Your task to perform on an android device: stop showing notifications on the lock screen Image 0: 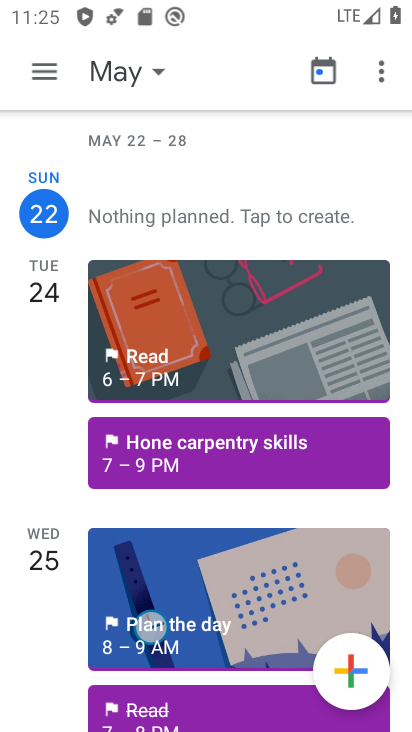
Step 0: press home button
Your task to perform on an android device: stop showing notifications on the lock screen Image 1: 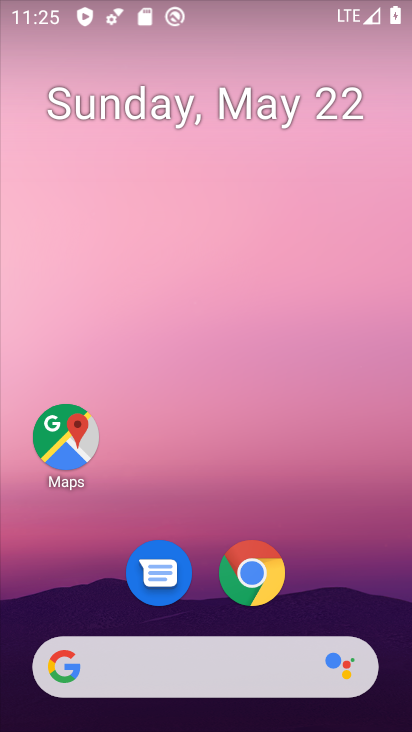
Step 1: drag from (199, 606) to (215, 311)
Your task to perform on an android device: stop showing notifications on the lock screen Image 2: 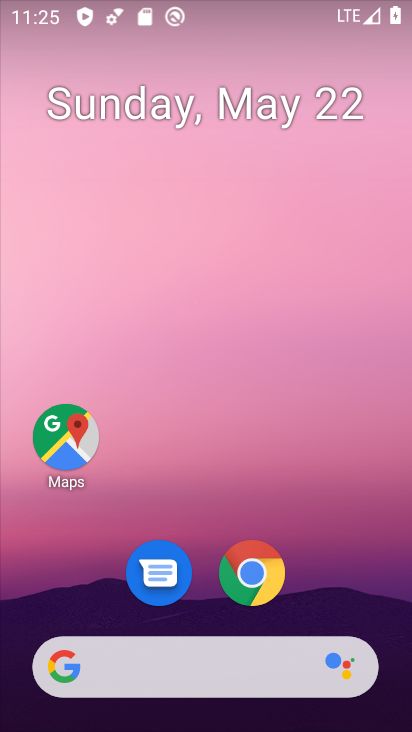
Step 2: drag from (222, 610) to (223, 157)
Your task to perform on an android device: stop showing notifications on the lock screen Image 3: 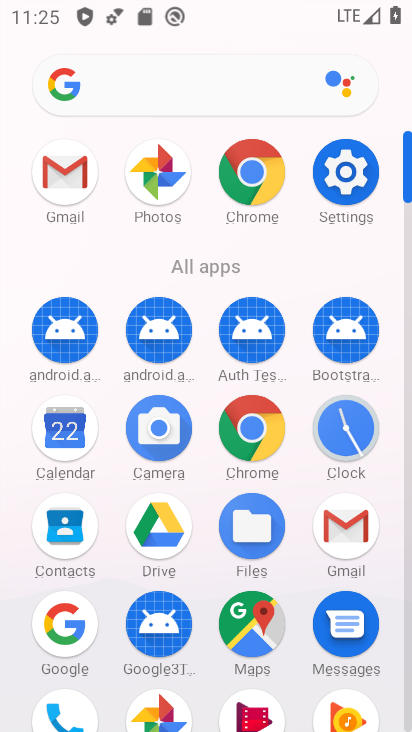
Step 3: click (346, 181)
Your task to perform on an android device: stop showing notifications on the lock screen Image 4: 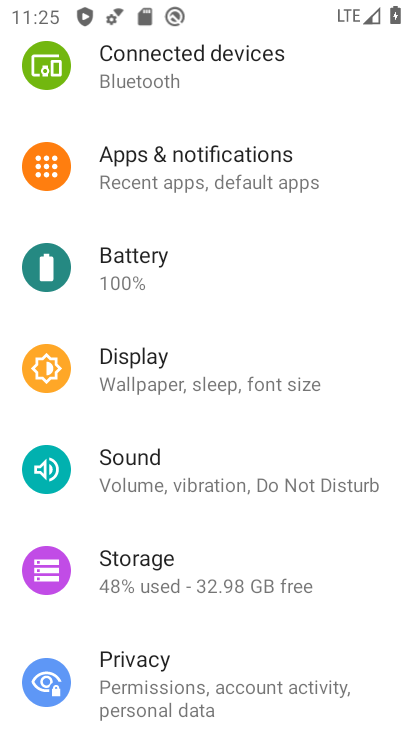
Step 4: click (239, 170)
Your task to perform on an android device: stop showing notifications on the lock screen Image 5: 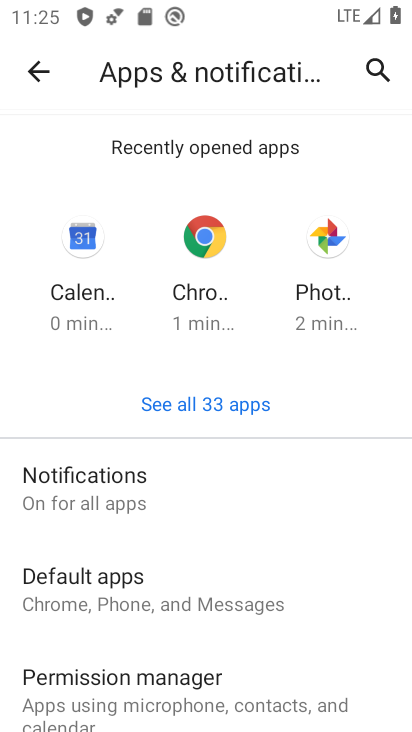
Step 5: click (135, 495)
Your task to perform on an android device: stop showing notifications on the lock screen Image 6: 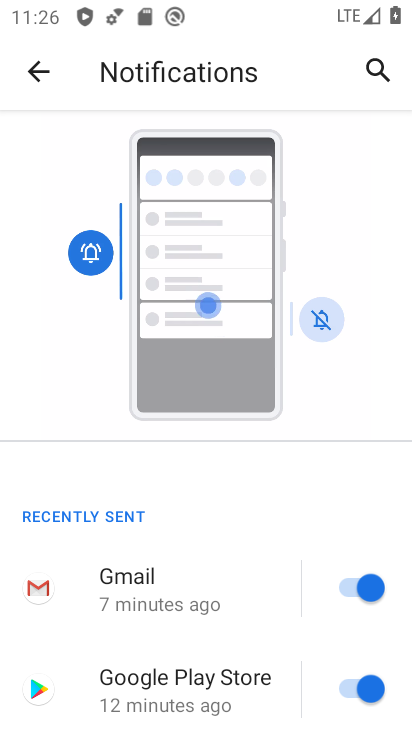
Step 6: drag from (135, 611) to (234, 194)
Your task to perform on an android device: stop showing notifications on the lock screen Image 7: 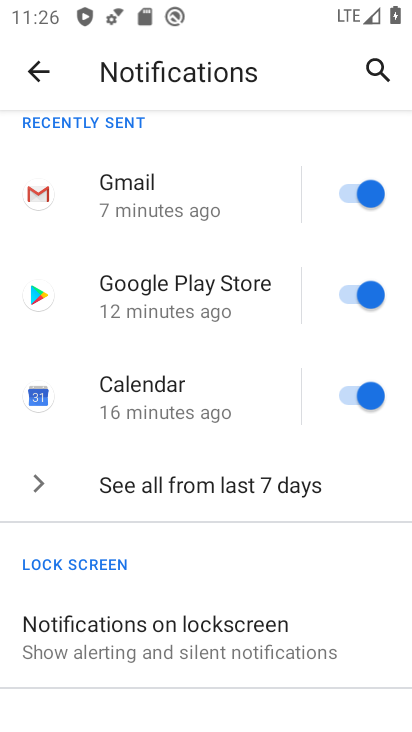
Step 7: drag from (193, 663) to (231, 394)
Your task to perform on an android device: stop showing notifications on the lock screen Image 8: 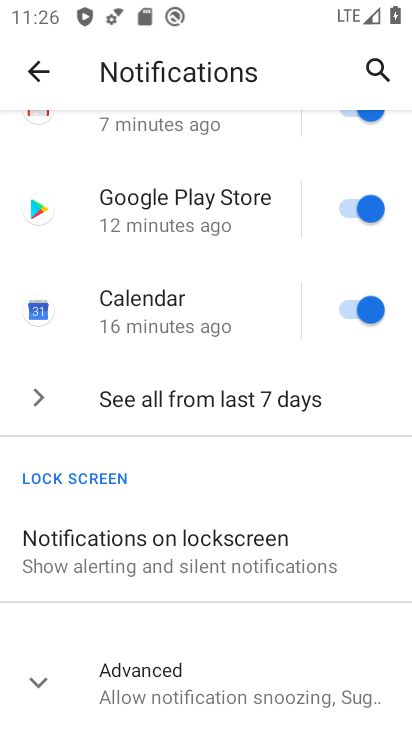
Step 8: click (171, 558)
Your task to perform on an android device: stop showing notifications on the lock screen Image 9: 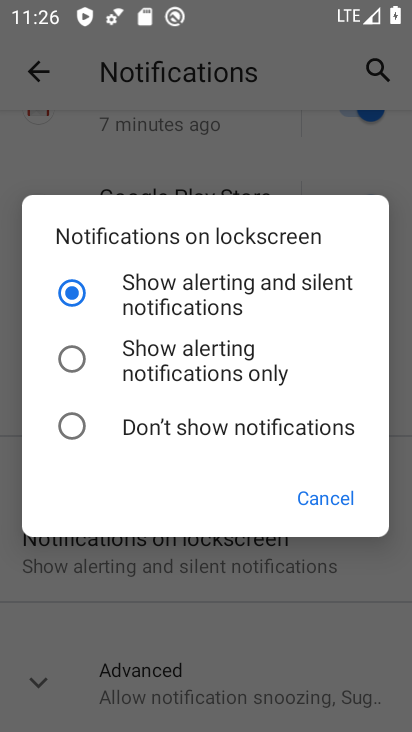
Step 9: click (196, 432)
Your task to perform on an android device: stop showing notifications on the lock screen Image 10: 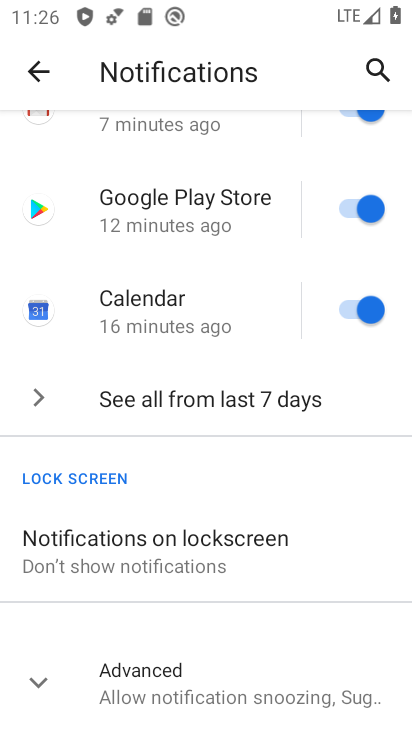
Step 10: task complete